Your task to perform on an android device: change notifications settings Image 0: 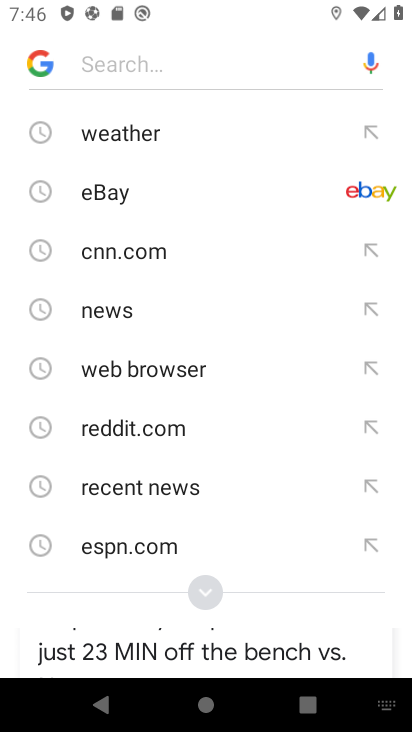
Step 0: press home button
Your task to perform on an android device: change notifications settings Image 1: 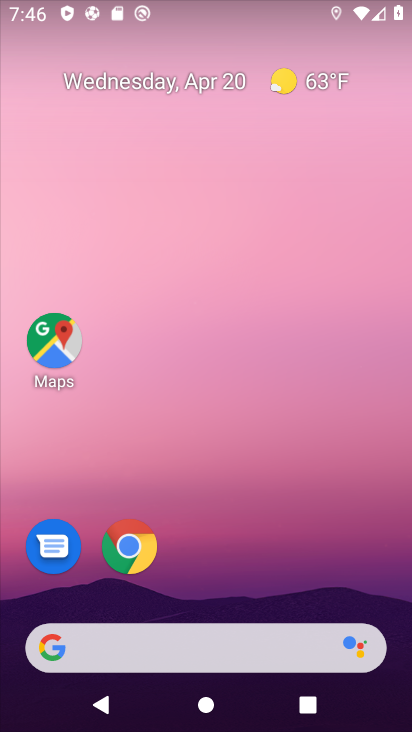
Step 1: drag from (279, 553) to (332, 104)
Your task to perform on an android device: change notifications settings Image 2: 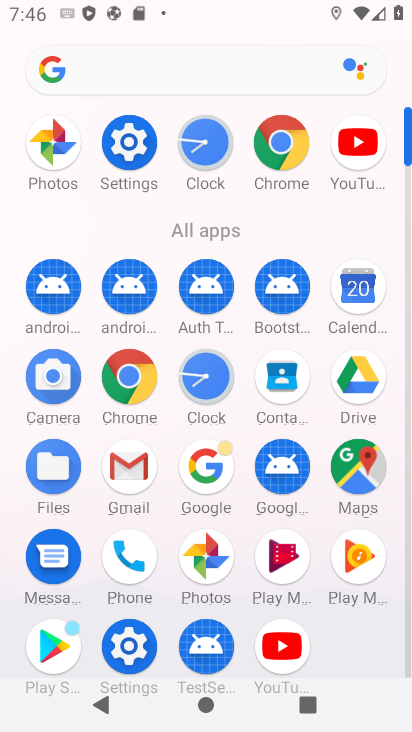
Step 2: click (121, 140)
Your task to perform on an android device: change notifications settings Image 3: 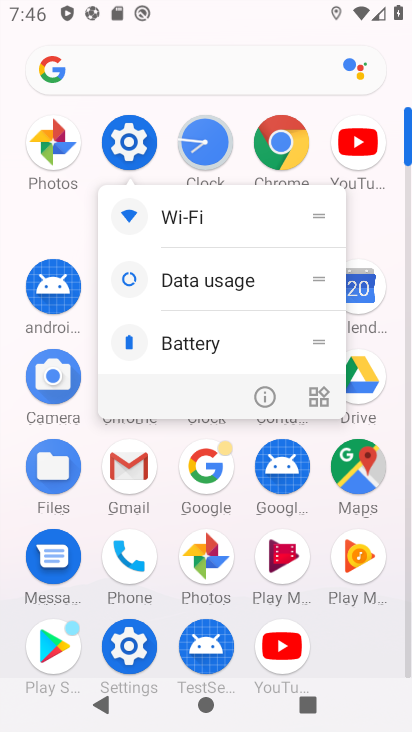
Step 3: click (121, 142)
Your task to perform on an android device: change notifications settings Image 4: 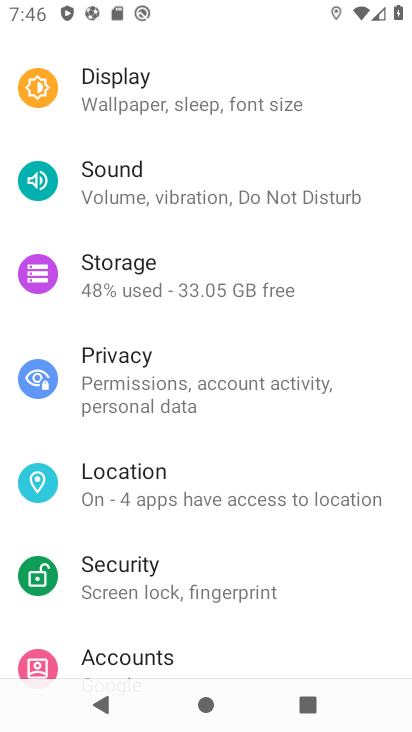
Step 4: drag from (125, 134) to (191, 510)
Your task to perform on an android device: change notifications settings Image 5: 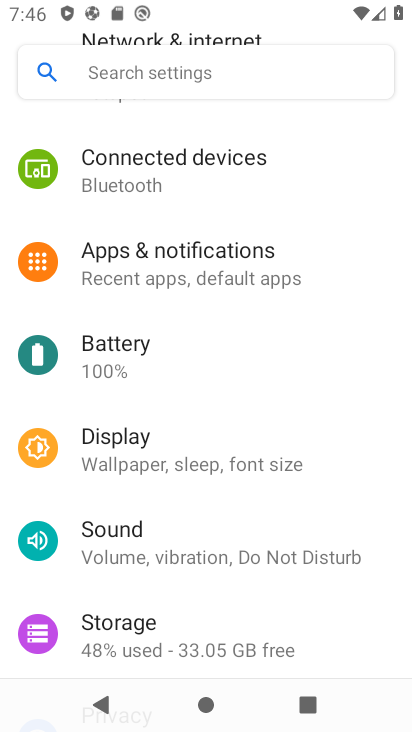
Step 5: click (229, 264)
Your task to perform on an android device: change notifications settings Image 6: 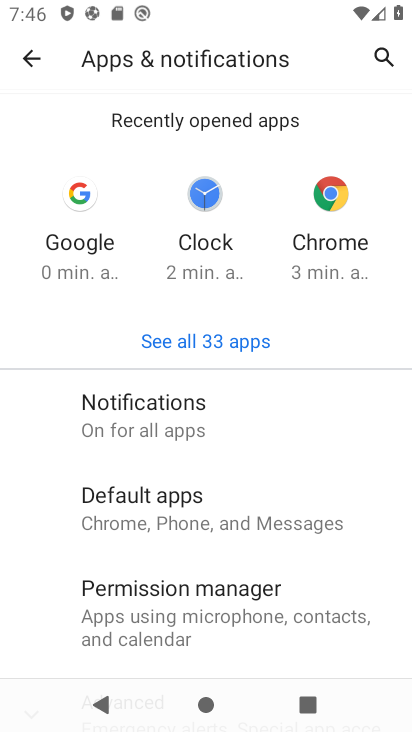
Step 6: click (195, 410)
Your task to perform on an android device: change notifications settings Image 7: 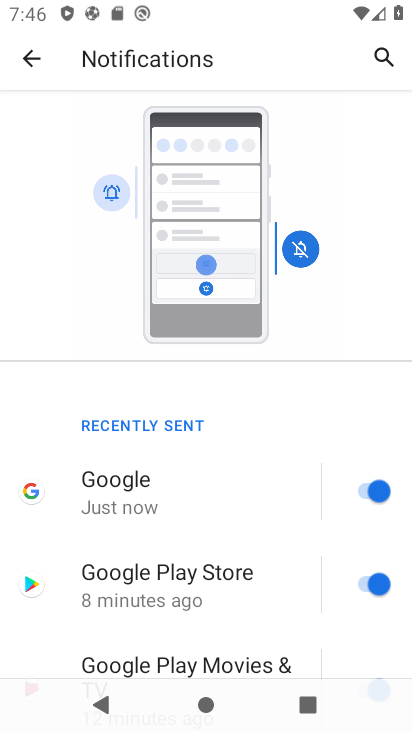
Step 7: drag from (234, 510) to (248, 249)
Your task to perform on an android device: change notifications settings Image 8: 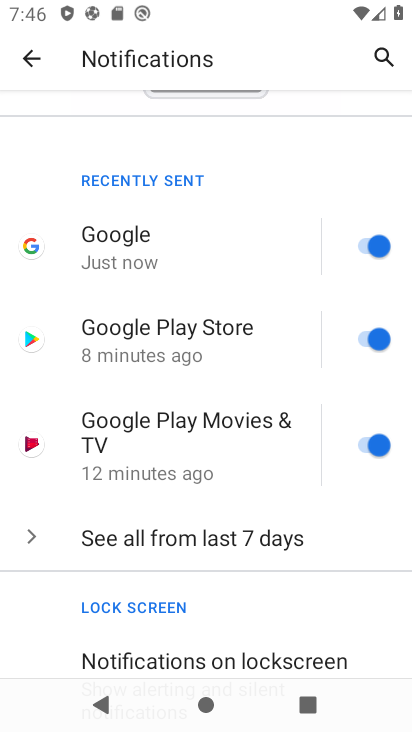
Step 8: click (272, 530)
Your task to perform on an android device: change notifications settings Image 9: 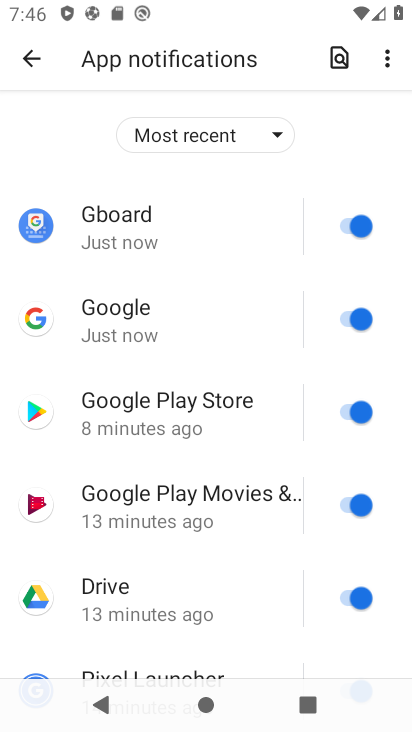
Step 9: click (344, 225)
Your task to perform on an android device: change notifications settings Image 10: 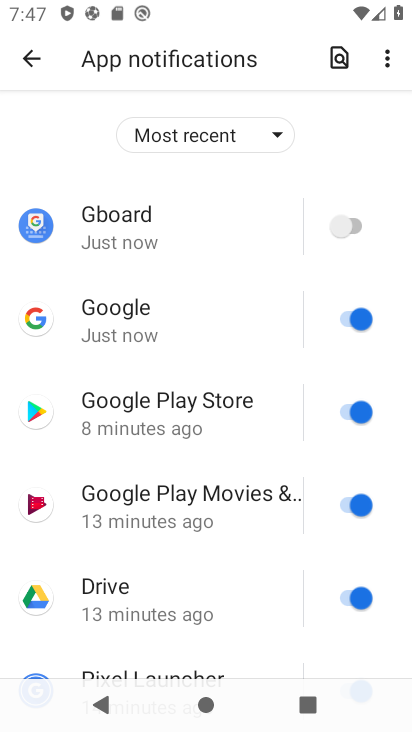
Step 10: click (349, 310)
Your task to perform on an android device: change notifications settings Image 11: 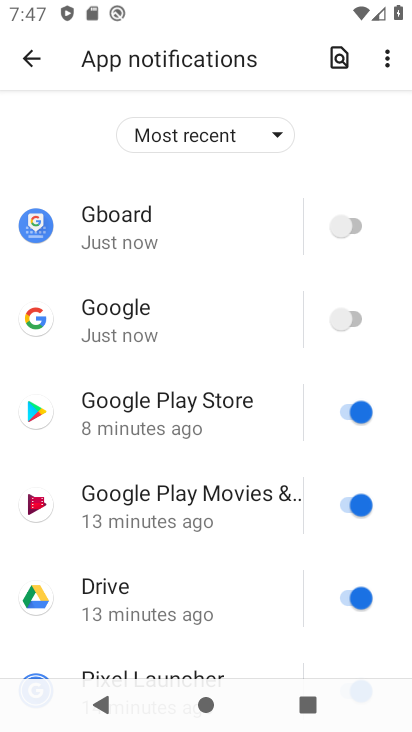
Step 11: click (355, 400)
Your task to perform on an android device: change notifications settings Image 12: 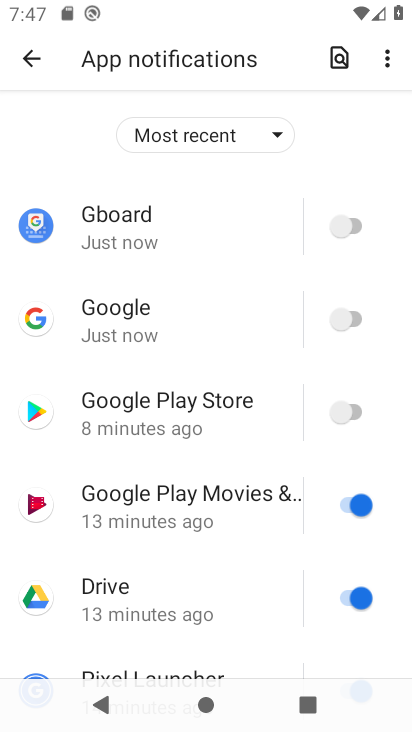
Step 12: click (357, 497)
Your task to perform on an android device: change notifications settings Image 13: 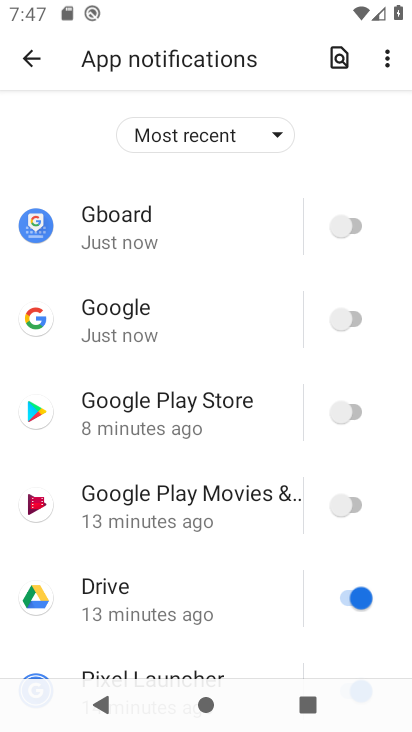
Step 13: click (359, 595)
Your task to perform on an android device: change notifications settings Image 14: 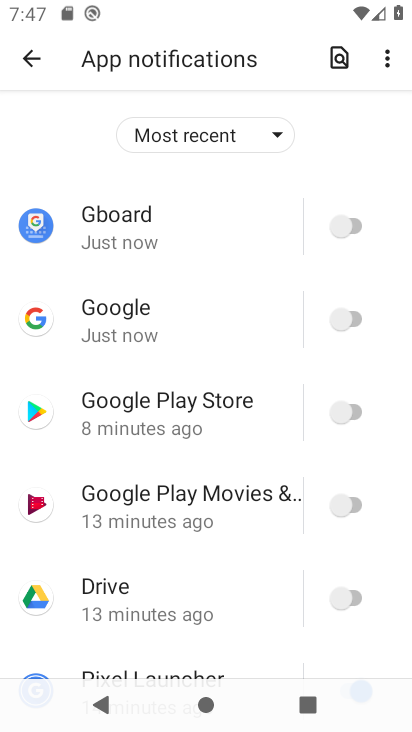
Step 14: drag from (240, 566) to (225, 299)
Your task to perform on an android device: change notifications settings Image 15: 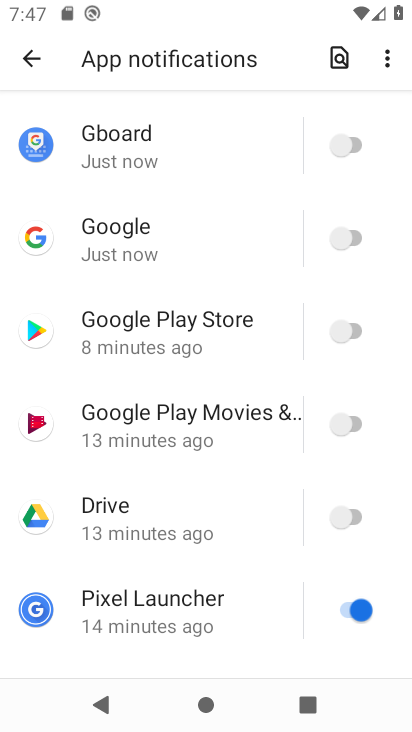
Step 15: click (344, 601)
Your task to perform on an android device: change notifications settings Image 16: 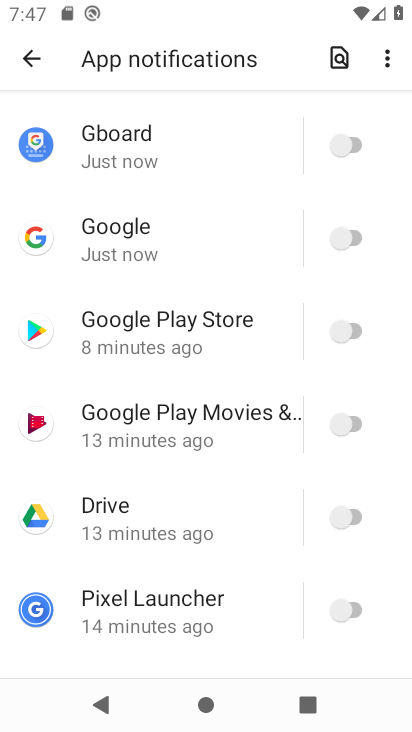
Step 16: task complete